Your task to perform on an android device: Open the calendar app, open the side menu, and click the "Day" option Image 0: 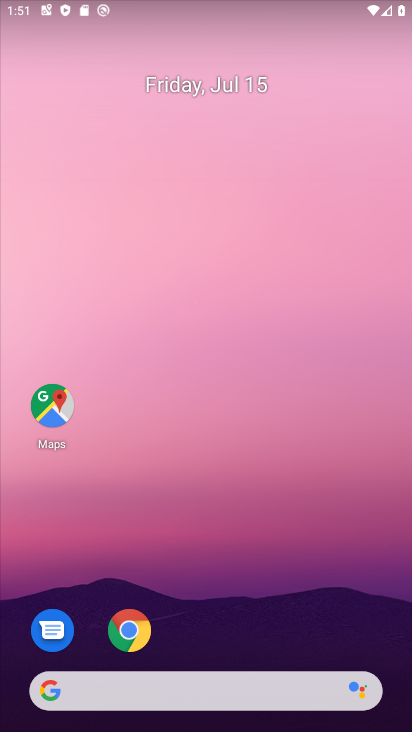
Step 0: drag from (207, 300) to (201, 102)
Your task to perform on an android device: Open the calendar app, open the side menu, and click the "Day" option Image 1: 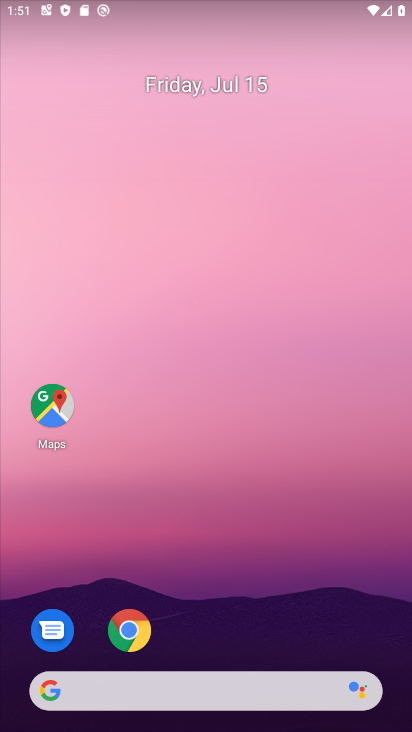
Step 1: drag from (273, 607) to (273, 162)
Your task to perform on an android device: Open the calendar app, open the side menu, and click the "Day" option Image 2: 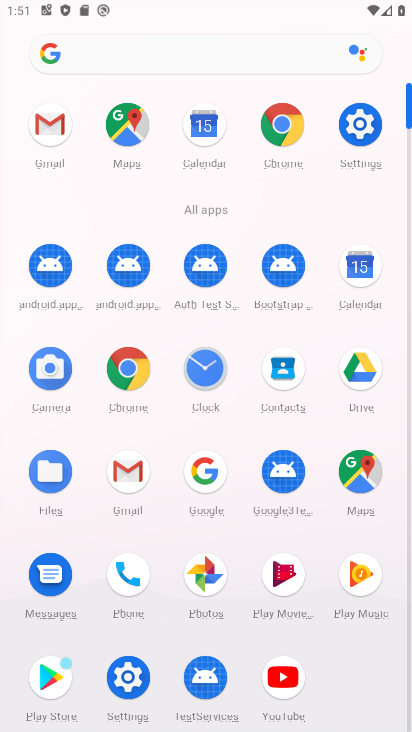
Step 2: click (352, 271)
Your task to perform on an android device: Open the calendar app, open the side menu, and click the "Day" option Image 3: 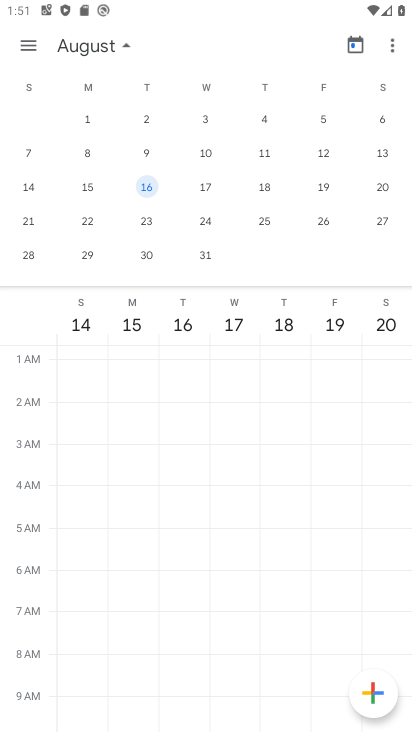
Step 3: click (23, 44)
Your task to perform on an android device: Open the calendar app, open the side menu, and click the "Day" option Image 4: 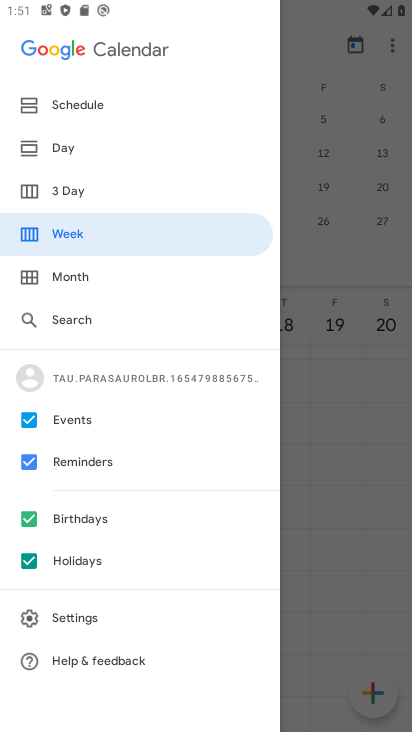
Step 4: click (66, 146)
Your task to perform on an android device: Open the calendar app, open the side menu, and click the "Day" option Image 5: 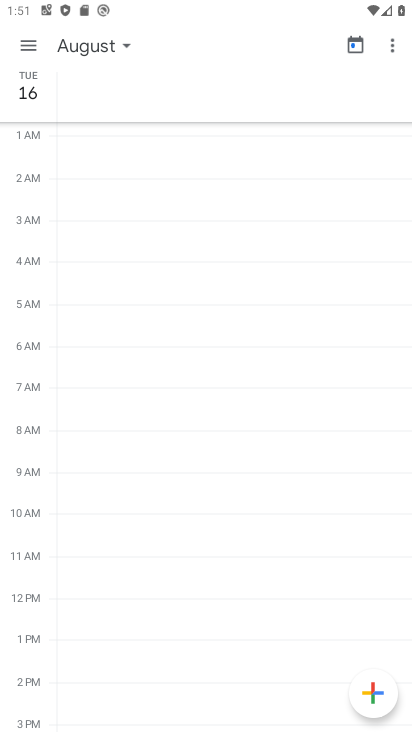
Step 5: task complete